Your task to perform on an android device: turn pop-ups on in chrome Image 0: 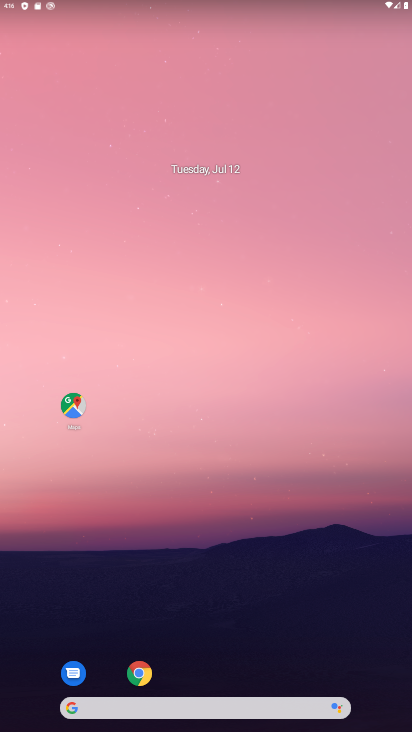
Step 0: click (263, 54)
Your task to perform on an android device: turn pop-ups on in chrome Image 1: 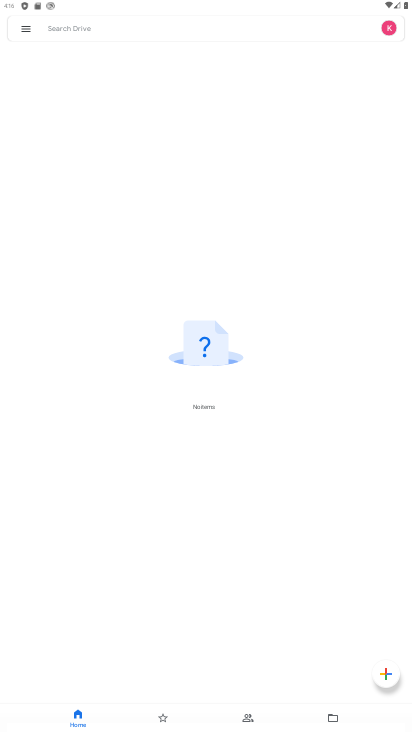
Step 1: press home button
Your task to perform on an android device: turn pop-ups on in chrome Image 2: 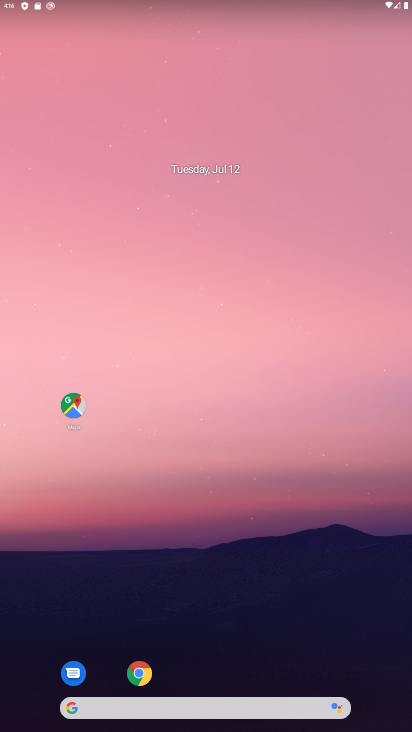
Step 2: drag from (270, 626) to (173, 79)
Your task to perform on an android device: turn pop-ups on in chrome Image 3: 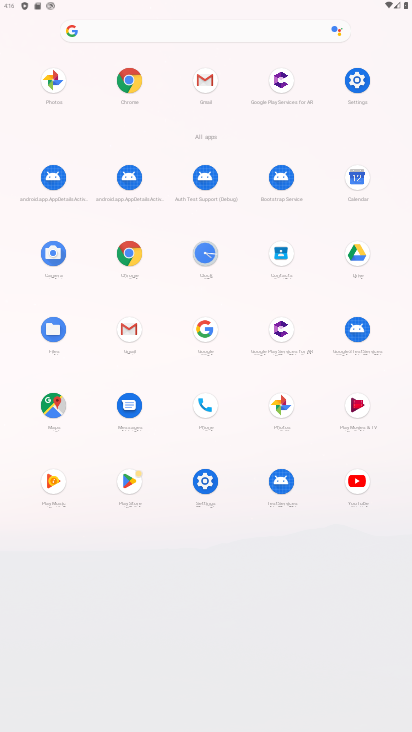
Step 3: click (127, 81)
Your task to perform on an android device: turn pop-ups on in chrome Image 4: 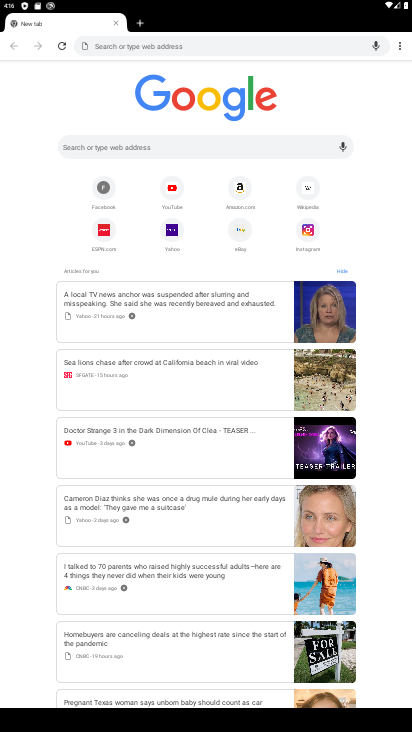
Step 4: drag from (408, 46) to (326, 211)
Your task to perform on an android device: turn pop-ups on in chrome Image 5: 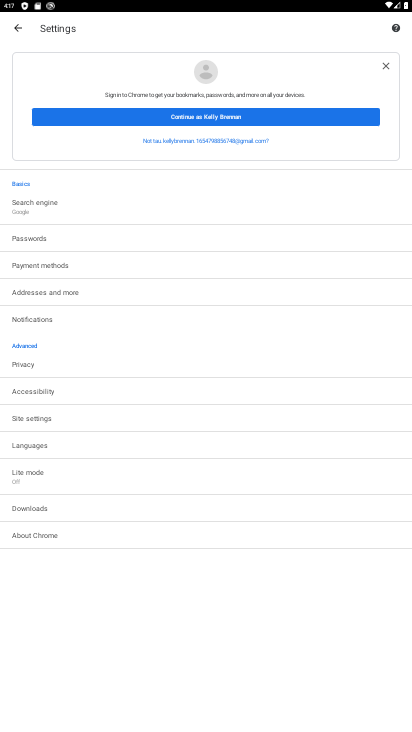
Step 5: click (54, 416)
Your task to perform on an android device: turn pop-ups on in chrome Image 6: 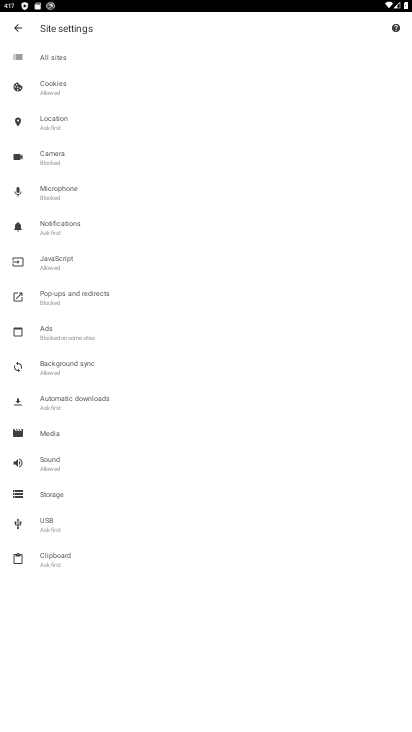
Step 6: click (41, 289)
Your task to perform on an android device: turn pop-ups on in chrome Image 7: 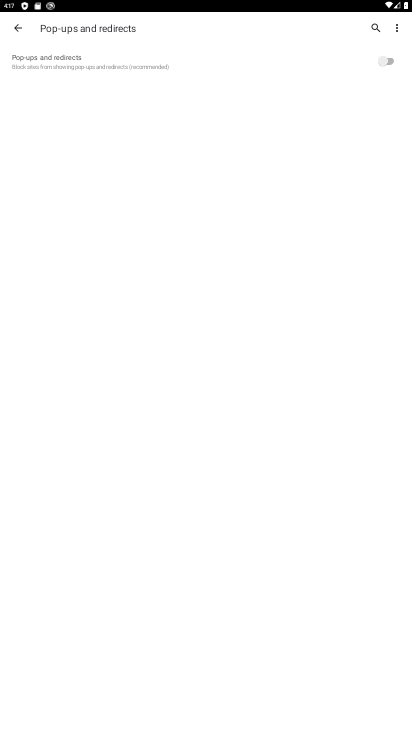
Step 7: click (385, 65)
Your task to perform on an android device: turn pop-ups on in chrome Image 8: 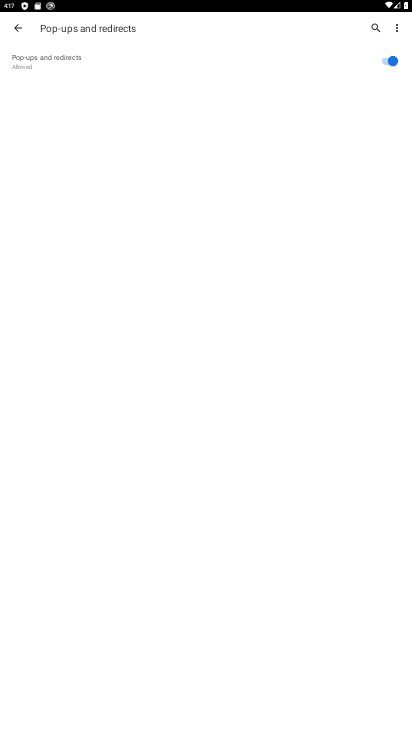
Step 8: task complete